Your task to perform on an android device: change text size in settings app Image 0: 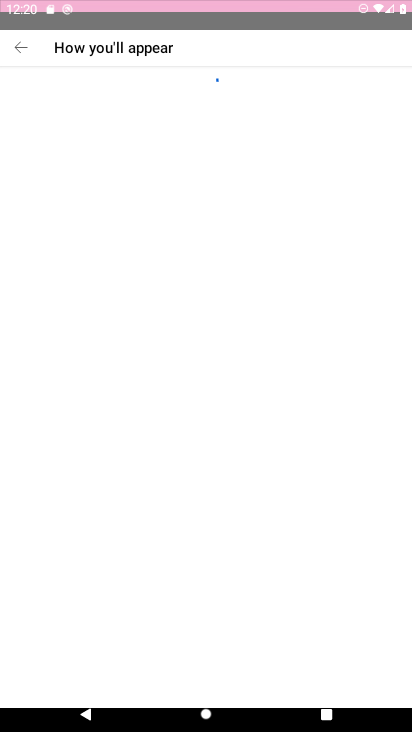
Step 0: press home button
Your task to perform on an android device: change text size in settings app Image 1: 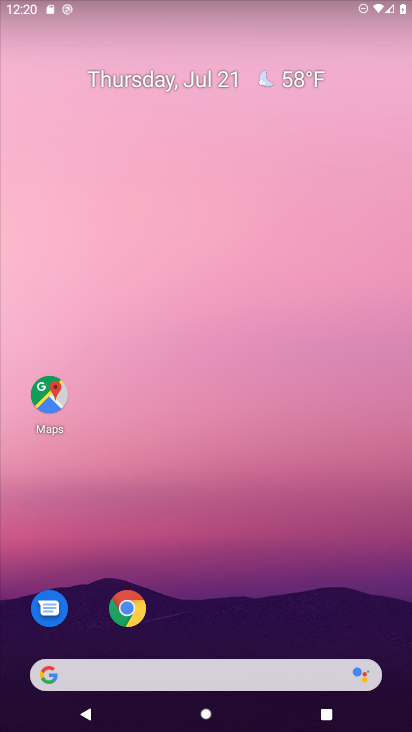
Step 1: press home button
Your task to perform on an android device: change text size in settings app Image 2: 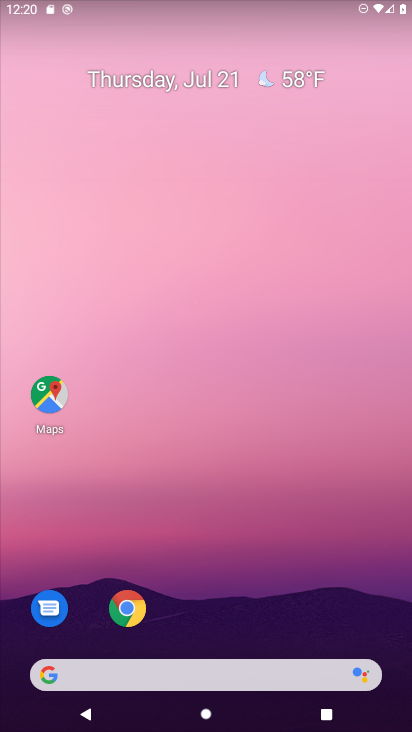
Step 2: drag from (269, 633) to (230, 33)
Your task to perform on an android device: change text size in settings app Image 3: 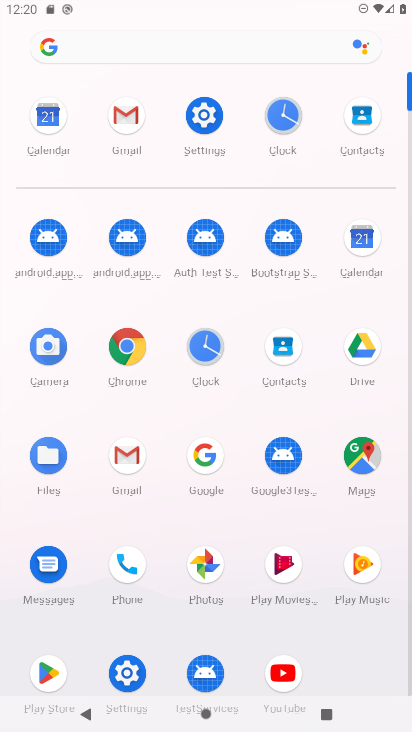
Step 3: click (203, 112)
Your task to perform on an android device: change text size in settings app Image 4: 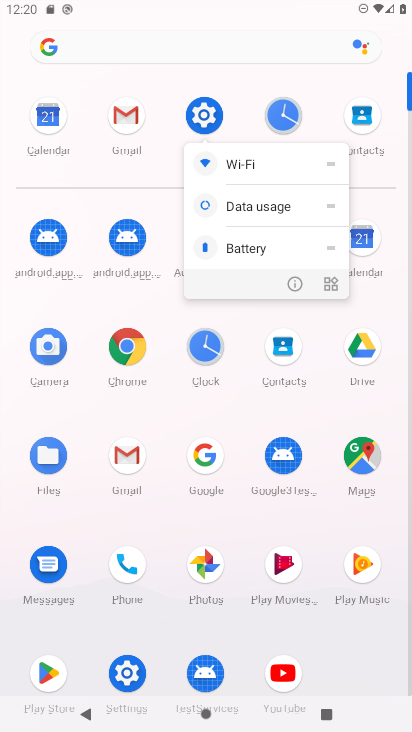
Step 4: click (204, 122)
Your task to perform on an android device: change text size in settings app Image 5: 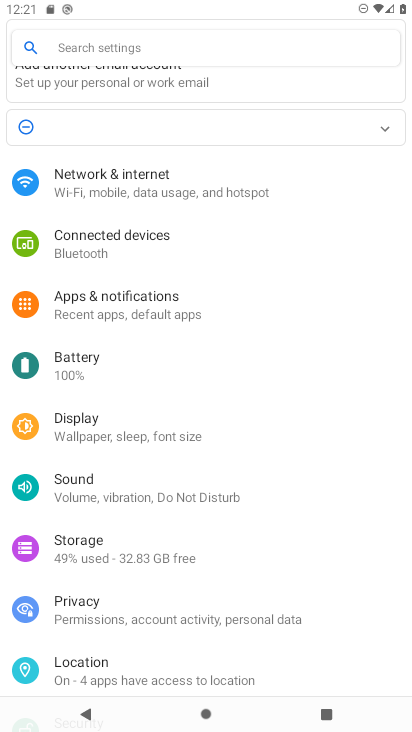
Step 5: click (131, 428)
Your task to perform on an android device: change text size in settings app Image 6: 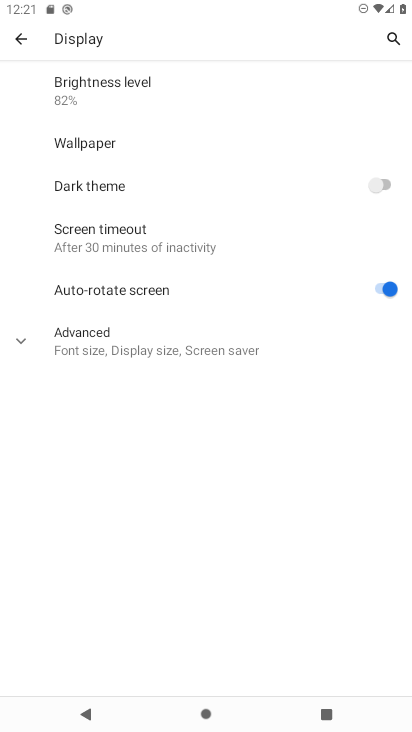
Step 6: click (29, 342)
Your task to perform on an android device: change text size in settings app Image 7: 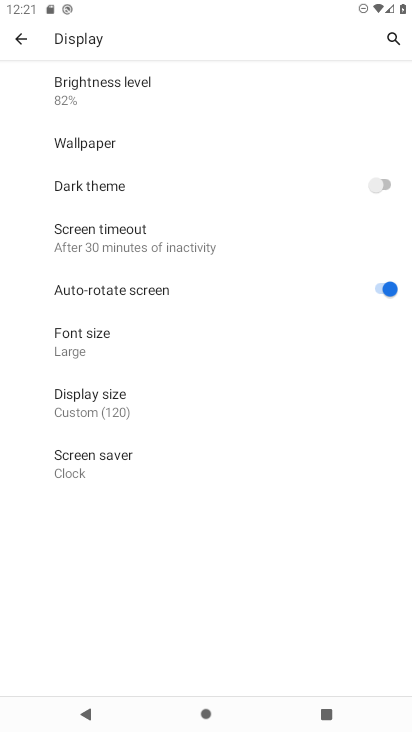
Step 7: click (129, 348)
Your task to perform on an android device: change text size in settings app Image 8: 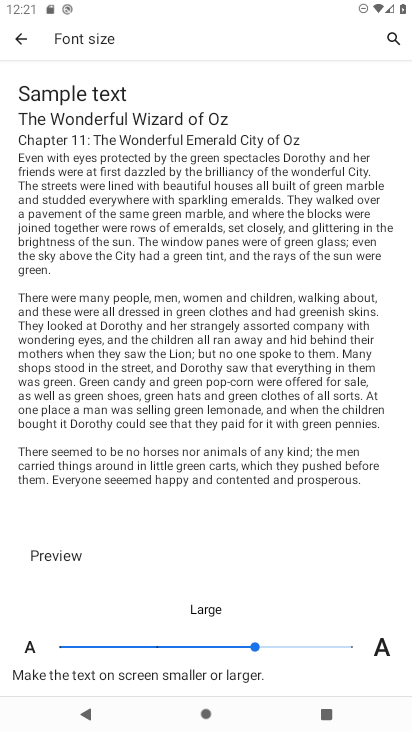
Step 8: click (349, 643)
Your task to perform on an android device: change text size in settings app Image 9: 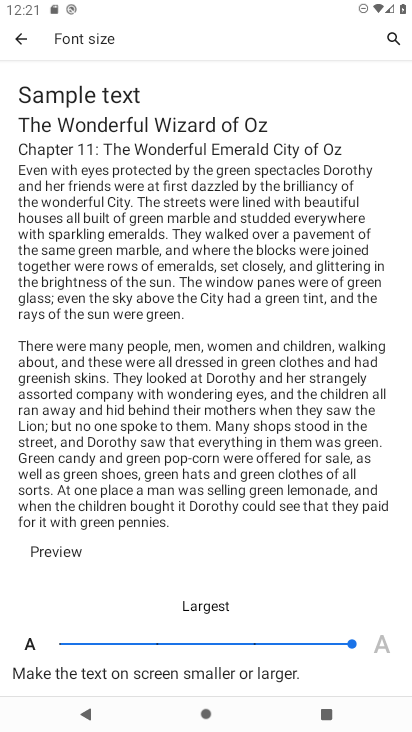
Step 9: task complete